Your task to perform on an android device: Go to internet settings Image 0: 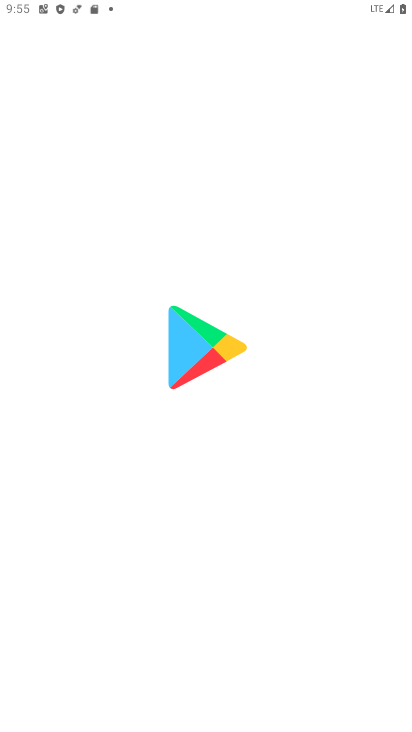
Step 0: press home button
Your task to perform on an android device: Go to internet settings Image 1: 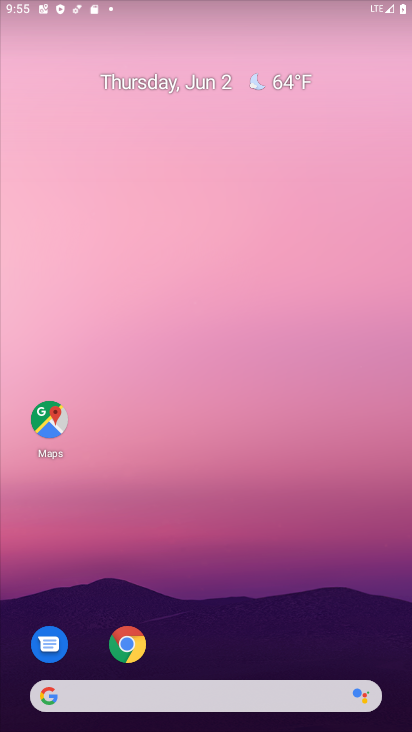
Step 1: drag from (343, 538) to (363, 3)
Your task to perform on an android device: Go to internet settings Image 2: 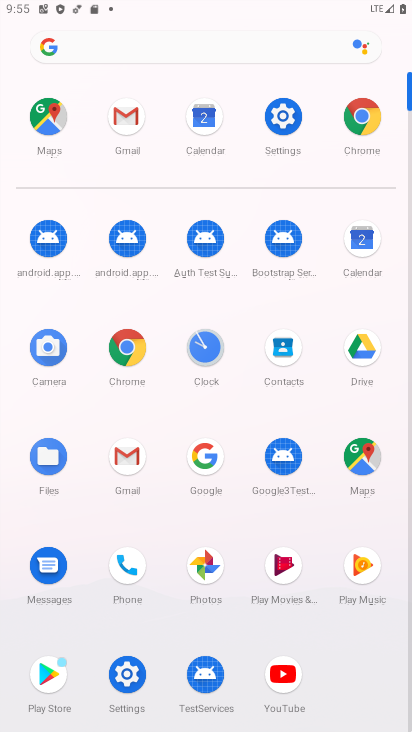
Step 2: click (276, 113)
Your task to perform on an android device: Go to internet settings Image 3: 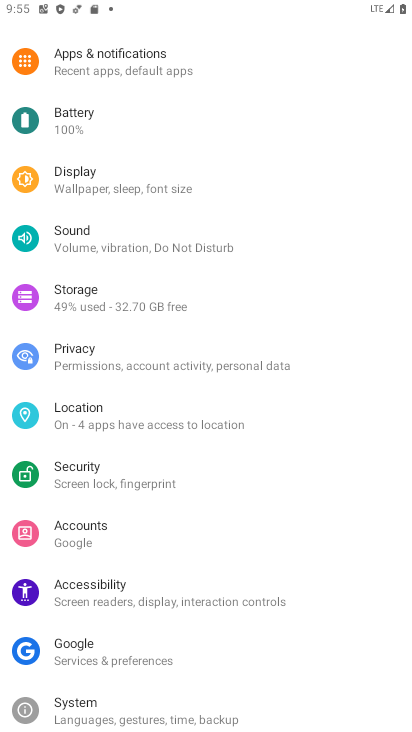
Step 3: drag from (276, 113) to (184, 480)
Your task to perform on an android device: Go to internet settings Image 4: 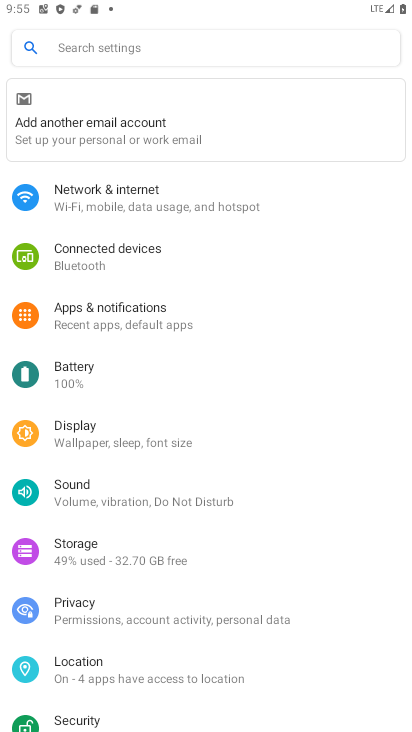
Step 4: click (274, 199)
Your task to perform on an android device: Go to internet settings Image 5: 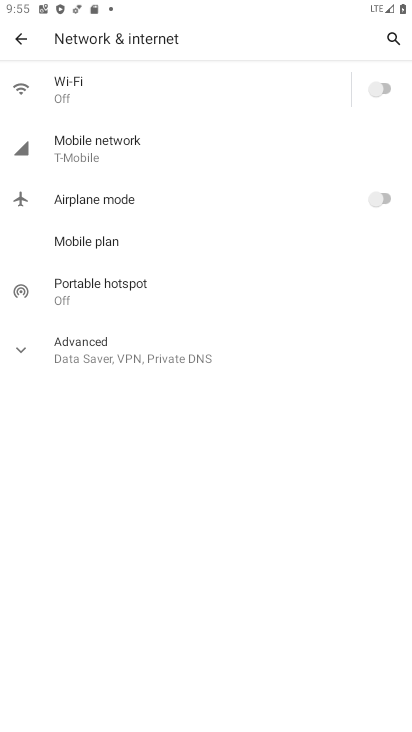
Step 5: task complete